Your task to perform on an android device: install app "WhatsApp Messenger" Image 0: 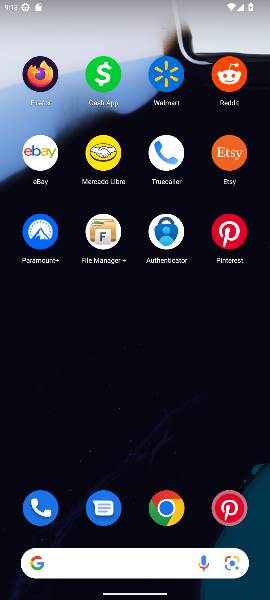
Step 0: drag from (152, 558) to (192, 102)
Your task to perform on an android device: install app "WhatsApp Messenger" Image 1: 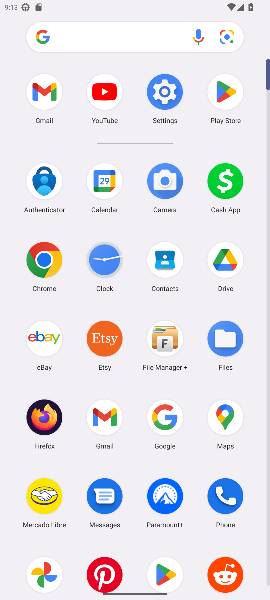
Step 1: click (216, 97)
Your task to perform on an android device: install app "WhatsApp Messenger" Image 2: 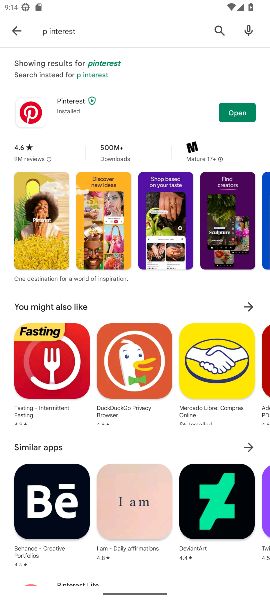
Step 2: click (221, 26)
Your task to perform on an android device: install app "WhatsApp Messenger" Image 3: 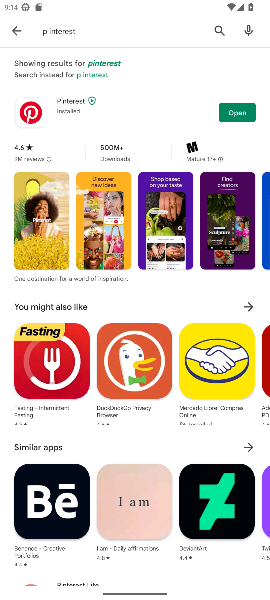
Step 3: click (221, 26)
Your task to perform on an android device: install app "WhatsApp Messenger" Image 4: 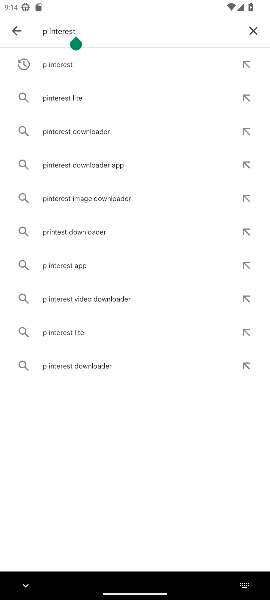
Step 4: click (247, 26)
Your task to perform on an android device: install app "WhatsApp Messenger" Image 5: 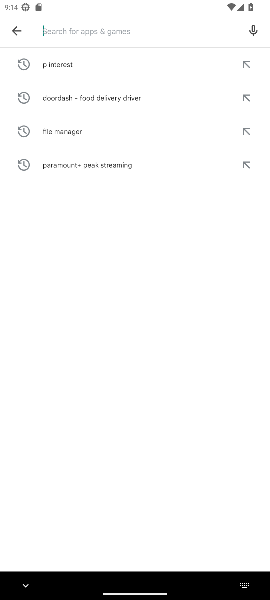
Step 5: type "whatsapp messenger"
Your task to perform on an android device: install app "WhatsApp Messenger" Image 6: 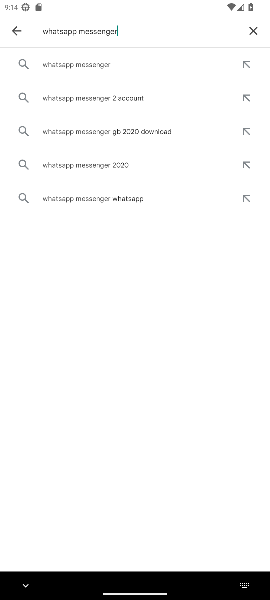
Step 6: click (109, 60)
Your task to perform on an android device: install app "WhatsApp Messenger" Image 7: 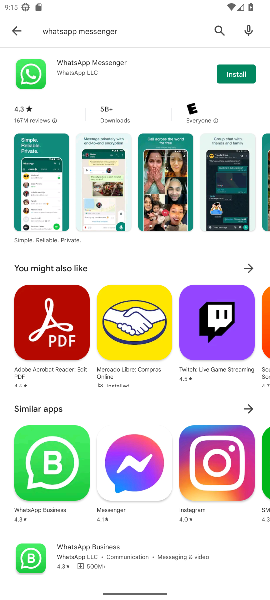
Step 7: click (247, 71)
Your task to perform on an android device: install app "WhatsApp Messenger" Image 8: 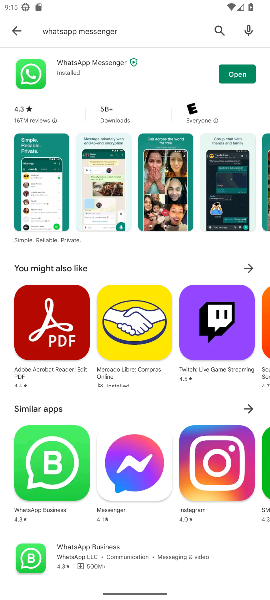
Step 8: task complete